Your task to perform on an android device: Go to calendar. Show me events next week Image 0: 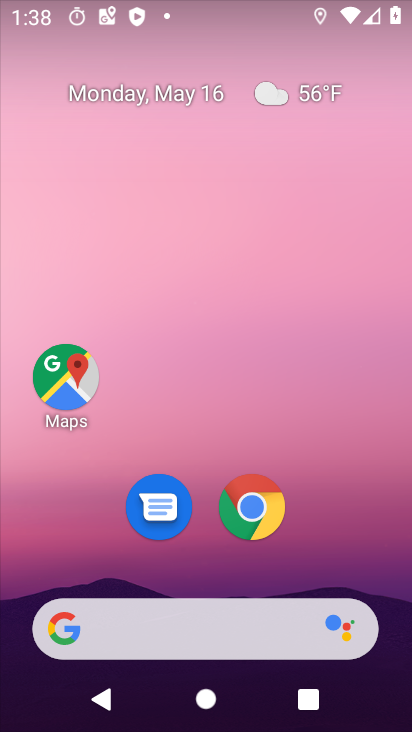
Step 0: drag from (217, 549) to (179, 99)
Your task to perform on an android device: Go to calendar. Show me events next week Image 1: 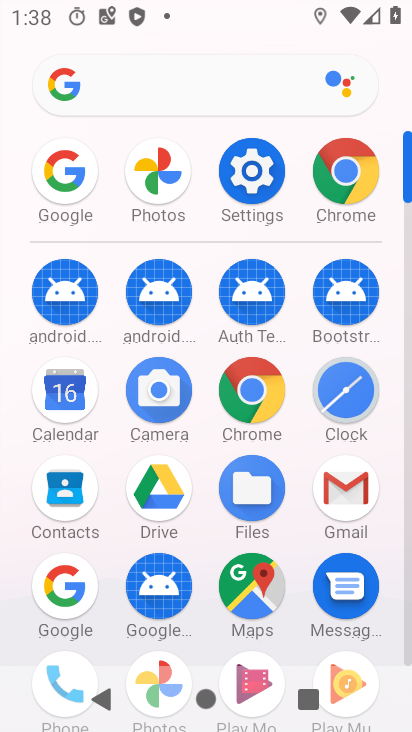
Step 1: click (64, 386)
Your task to perform on an android device: Go to calendar. Show me events next week Image 2: 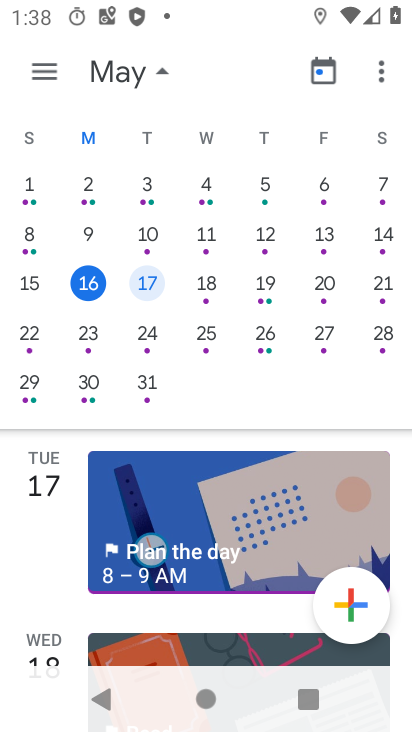
Step 2: click (153, 333)
Your task to perform on an android device: Go to calendar. Show me events next week Image 3: 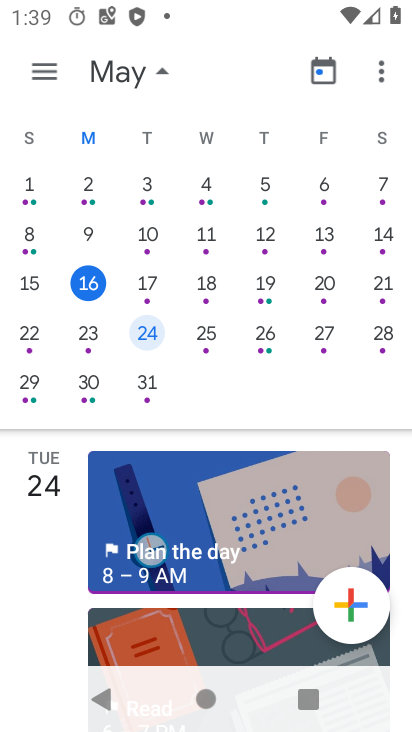
Step 3: task complete